Your task to perform on an android device: empty trash in the gmail app Image 0: 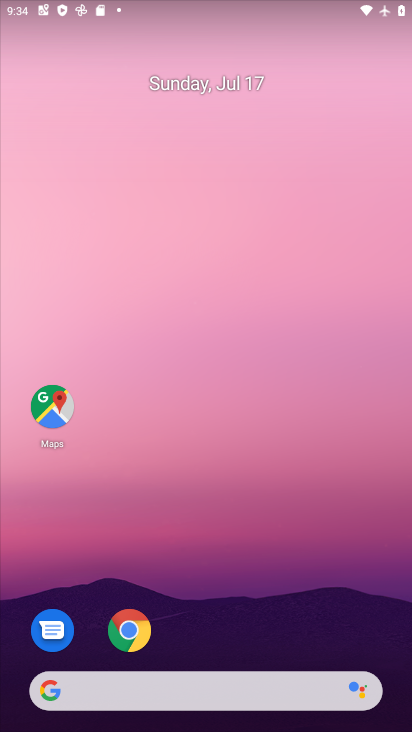
Step 0: drag from (262, 634) to (294, 70)
Your task to perform on an android device: empty trash in the gmail app Image 1: 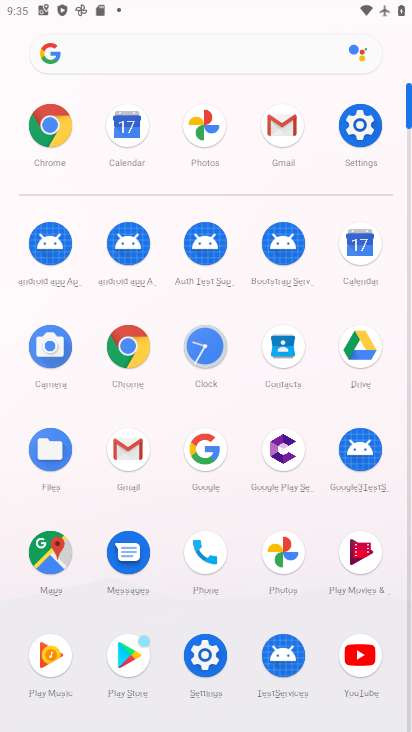
Step 1: click (271, 140)
Your task to perform on an android device: empty trash in the gmail app Image 2: 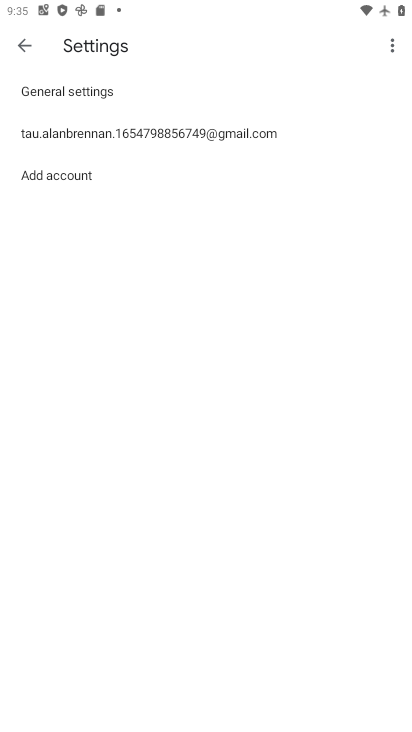
Step 2: press home button
Your task to perform on an android device: empty trash in the gmail app Image 3: 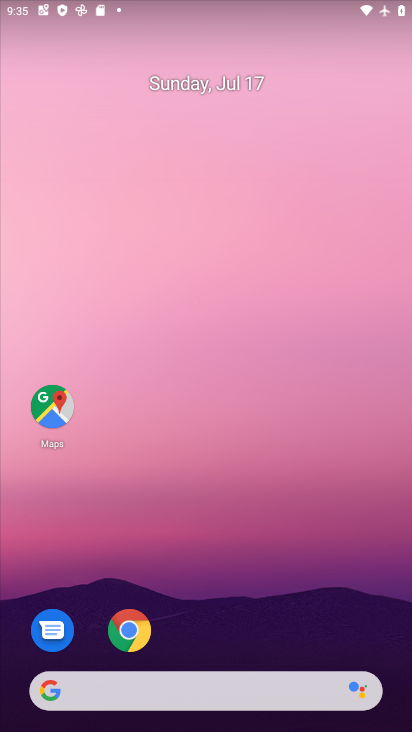
Step 3: drag from (206, 641) to (212, 149)
Your task to perform on an android device: empty trash in the gmail app Image 4: 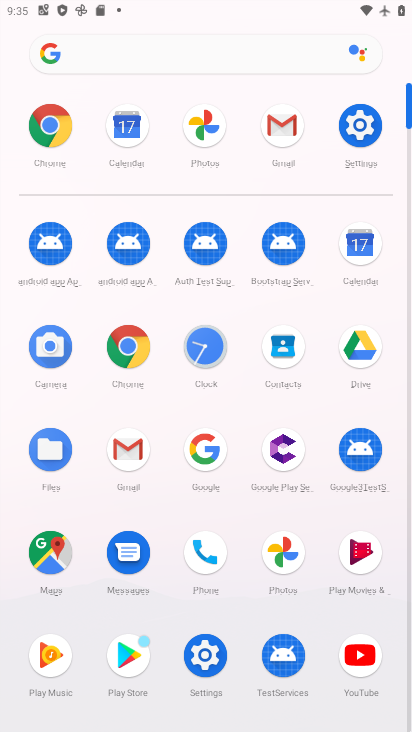
Step 4: click (262, 138)
Your task to perform on an android device: empty trash in the gmail app Image 5: 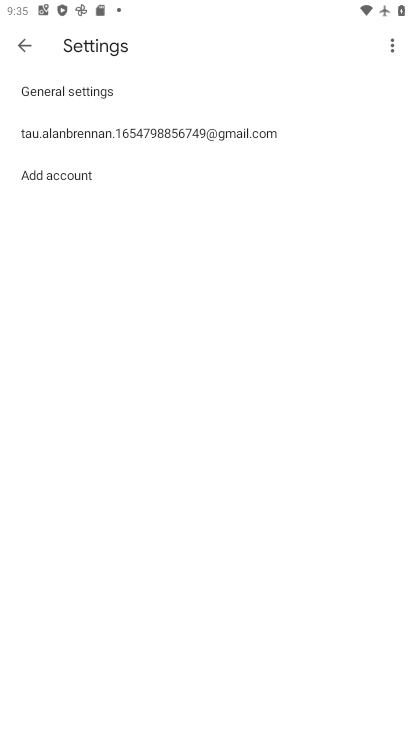
Step 5: task complete